Your task to perform on an android device: uninstall "Pluto TV - Live TV and Movies" Image 0: 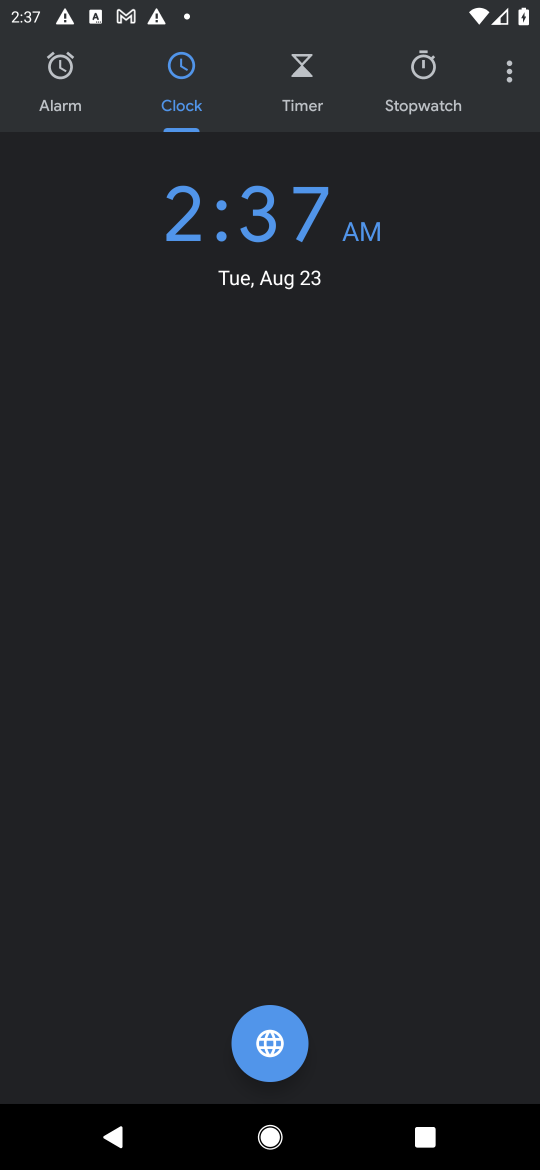
Step 0: press home button
Your task to perform on an android device: uninstall "Pluto TV - Live TV and Movies" Image 1: 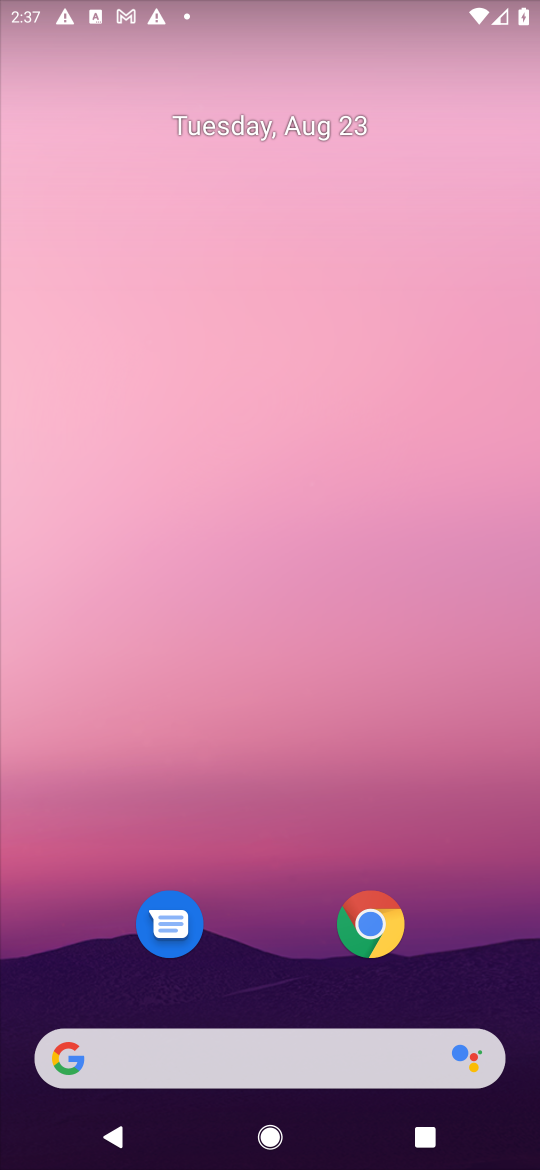
Step 1: drag from (467, 959) to (426, 188)
Your task to perform on an android device: uninstall "Pluto TV - Live TV and Movies" Image 2: 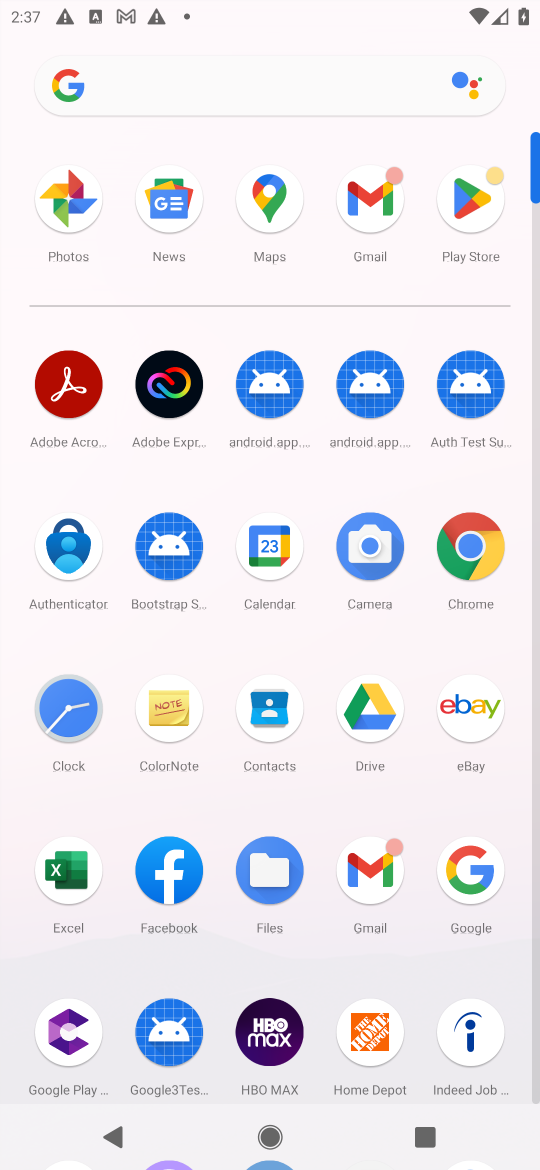
Step 2: click (465, 204)
Your task to perform on an android device: uninstall "Pluto TV - Live TV and Movies" Image 3: 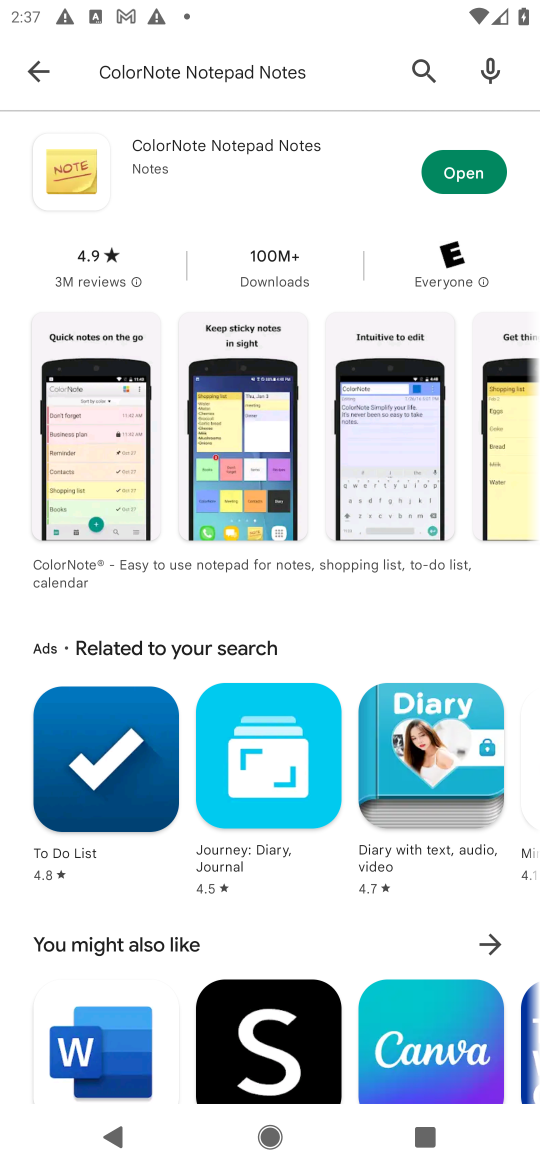
Step 3: press back button
Your task to perform on an android device: uninstall "Pluto TV - Live TV and Movies" Image 4: 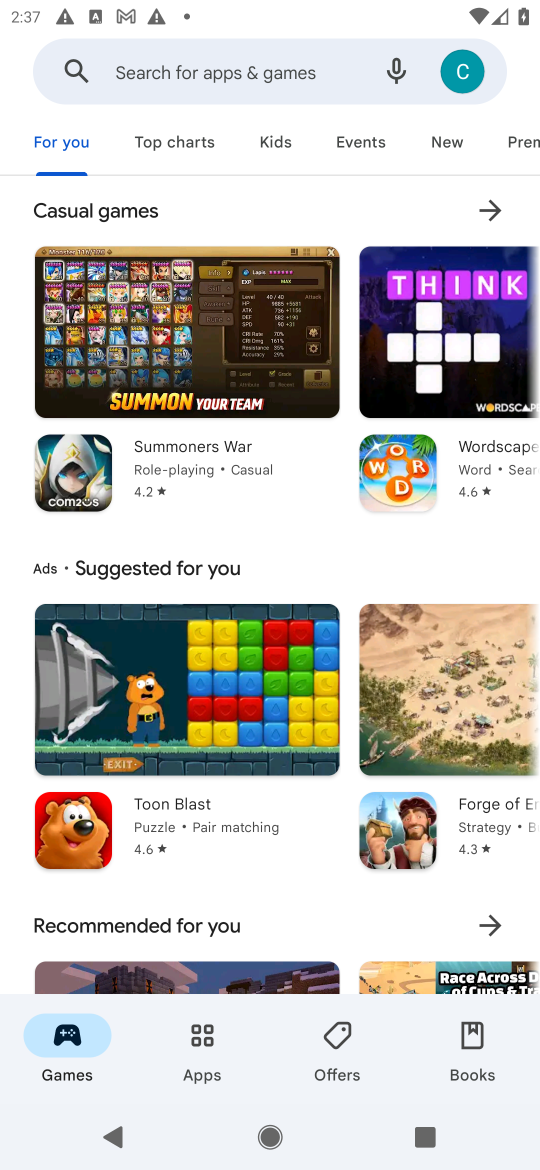
Step 4: click (211, 67)
Your task to perform on an android device: uninstall "Pluto TV - Live TV and Movies" Image 5: 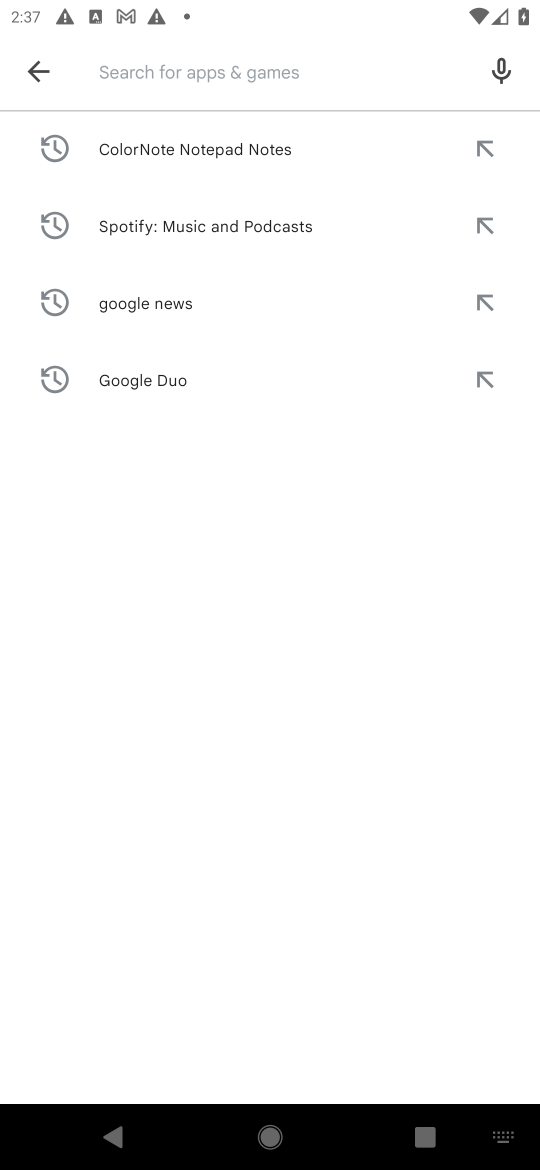
Step 5: type "Pluto TV - Live TV and Movies"
Your task to perform on an android device: uninstall "Pluto TV - Live TV and Movies" Image 6: 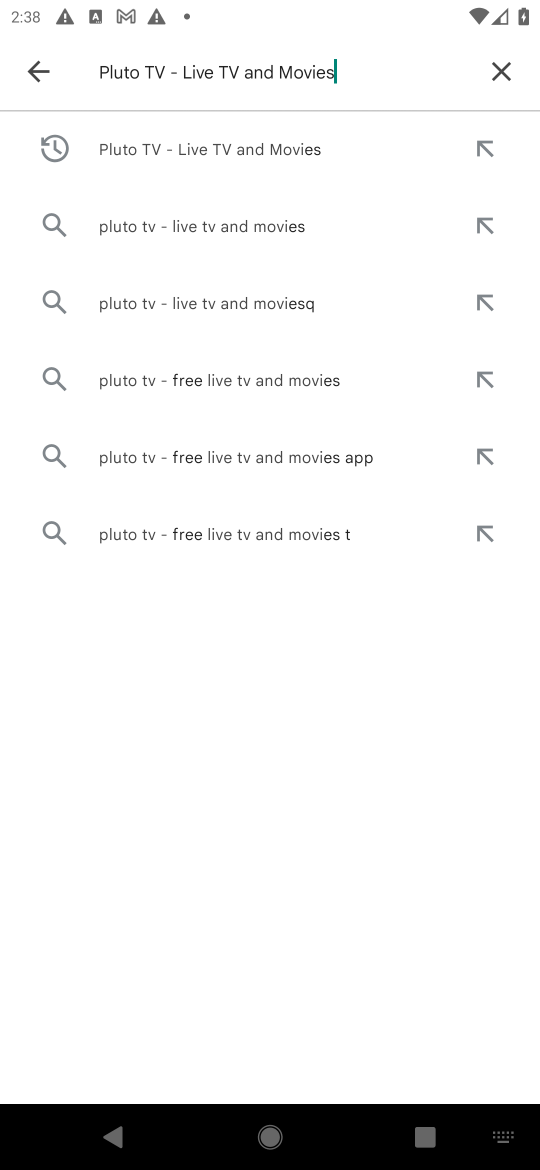
Step 6: press enter
Your task to perform on an android device: uninstall "Pluto TV - Live TV and Movies" Image 7: 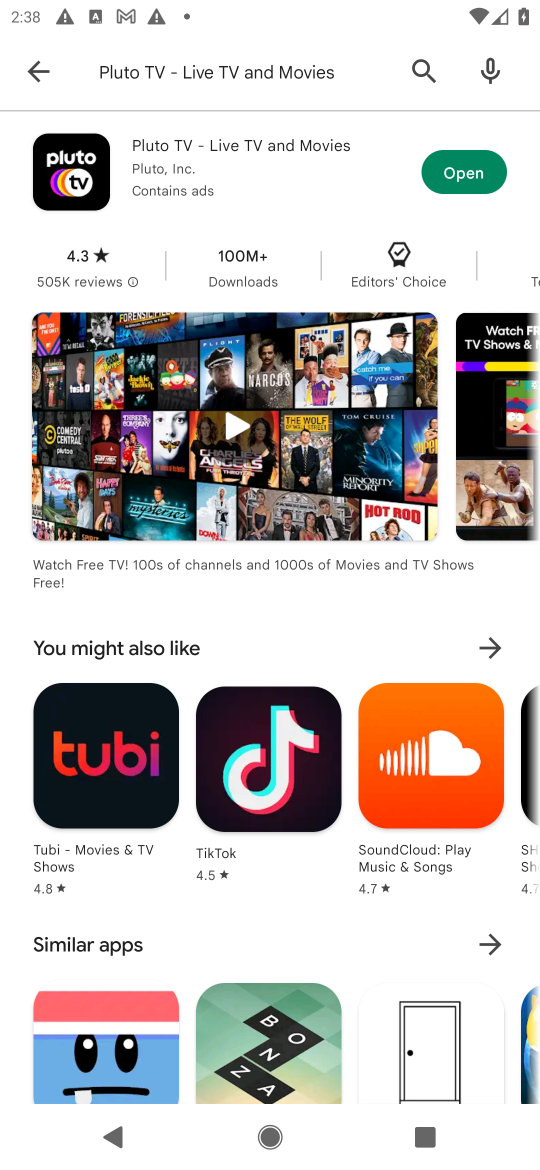
Step 7: task complete